Your task to perform on an android device: move an email to a new category in the gmail app Image 0: 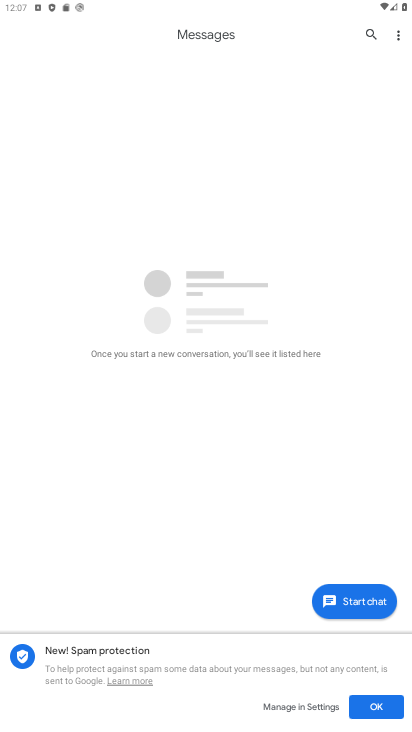
Step 0: press home button
Your task to perform on an android device: move an email to a new category in the gmail app Image 1: 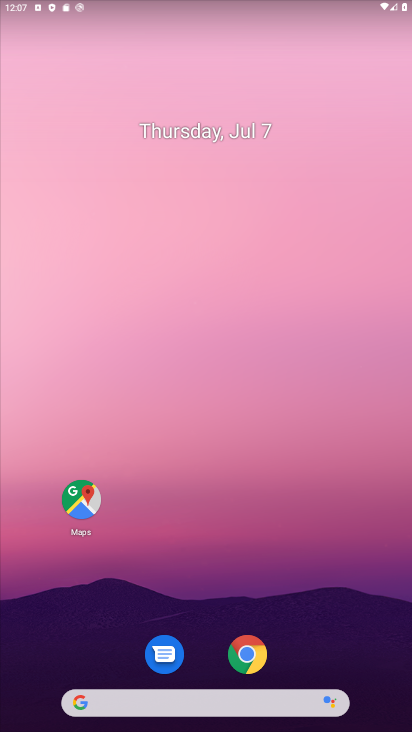
Step 1: drag from (200, 666) to (283, 26)
Your task to perform on an android device: move an email to a new category in the gmail app Image 2: 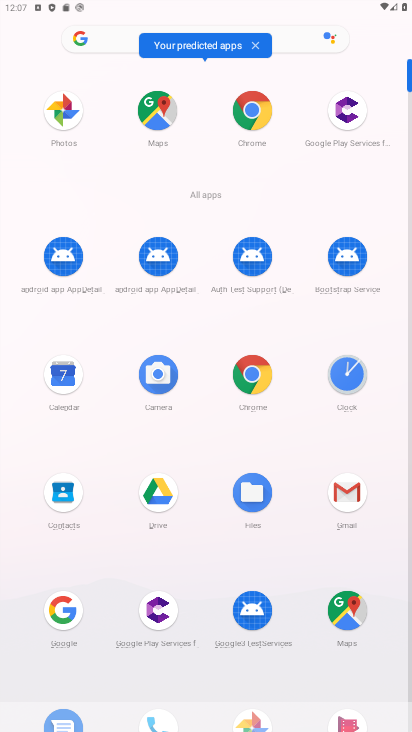
Step 2: click (346, 498)
Your task to perform on an android device: move an email to a new category in the gmail app Image 3: 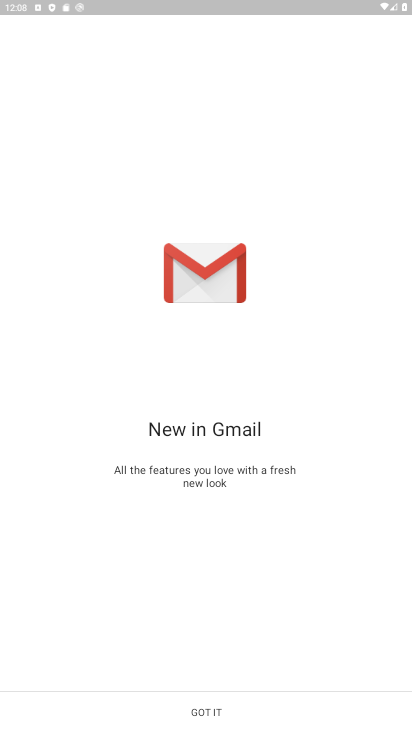
Step 3: click (198, 707)
Your task to perform on an android device: move an email to a new category in the gmail app Image 4: 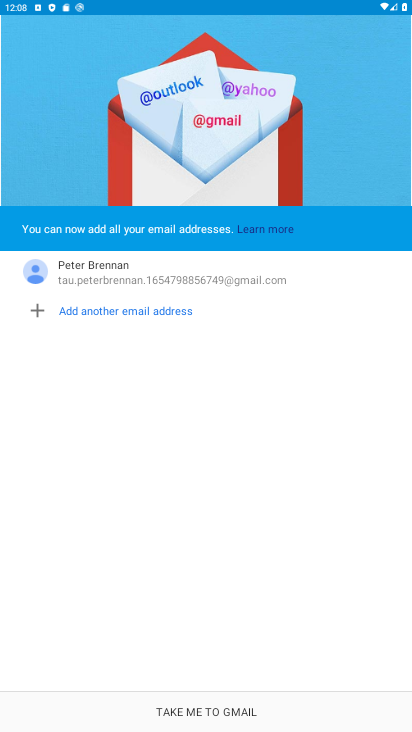
Step 4: click (232, 699)
Your task to perform on an android device: move an email to a new category in the gmail app Image 5: 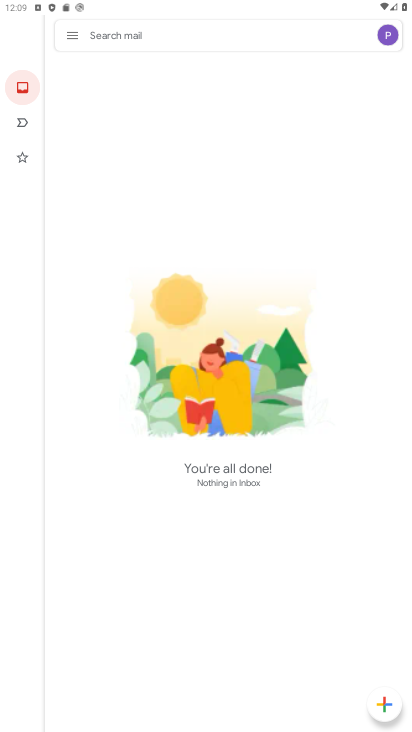
Step 5: task complete